Your task to perform on an android device: Go to display settings Image 0: 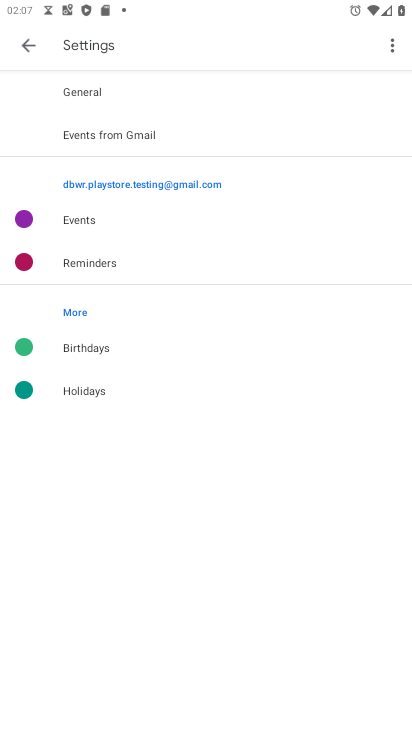
Step 0: press home button
Your task to perform on an android device: Go to display settings Image 1: 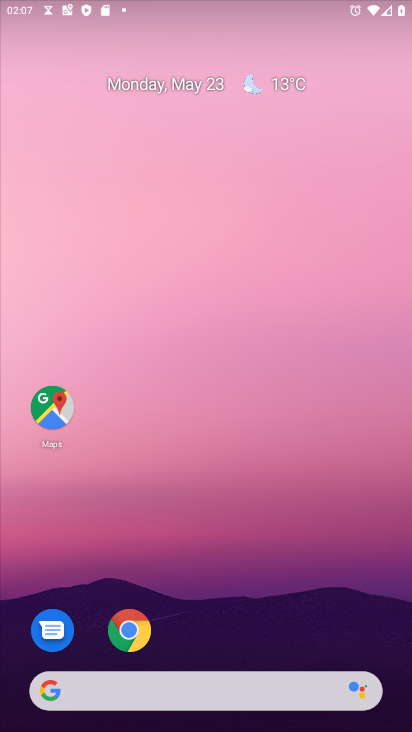
Step 1: drag from (280, 518) to (161, 44)
Your task to perform on an android device: Go to display settings Image 2: 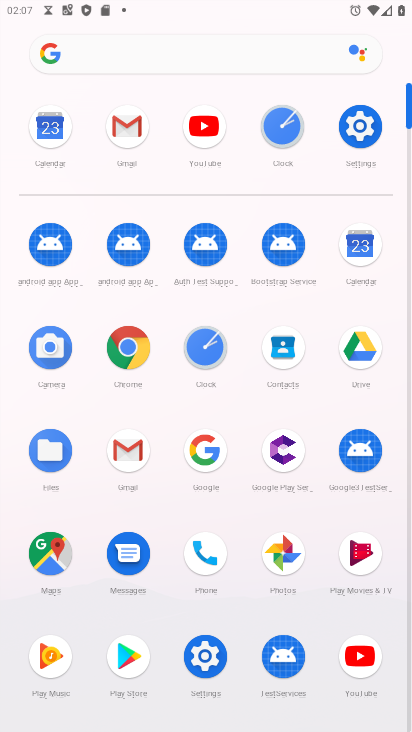
Step 2: click (364, 134)
Your task to perform on an android device: Go to display settings Image 3: 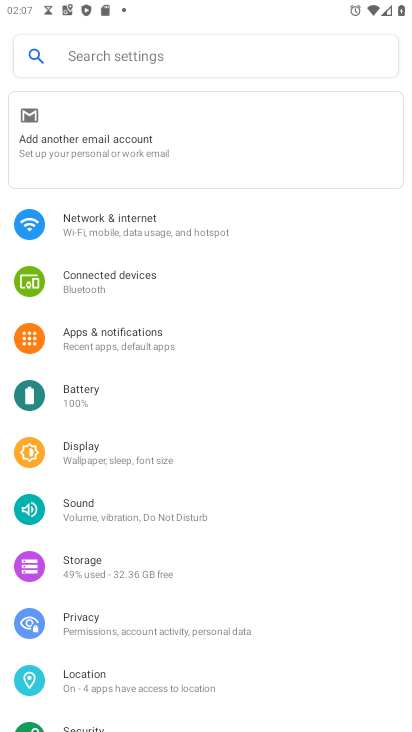
Step 3: click (131, 440)
Your task to perform on an android device: Go to display settings Image 4: 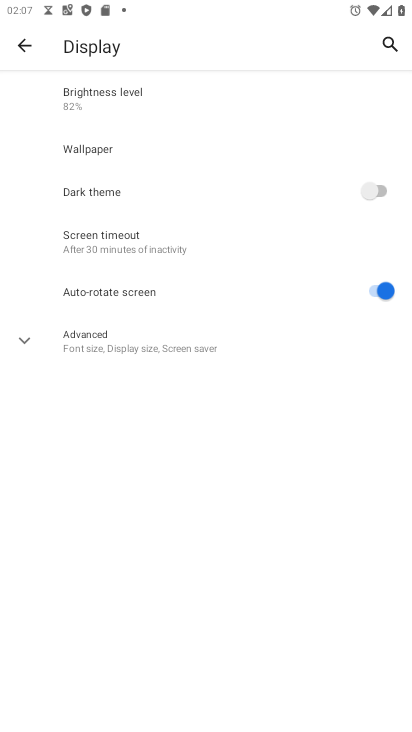
Step 4: task complete